Your task to perform on an android device: Open settings Image 0: 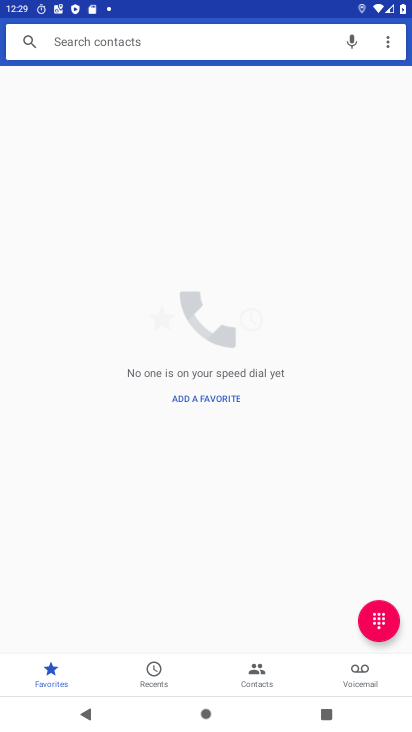
Step 0: press home button
Your task to perform on an android device: Open settings Image 1: 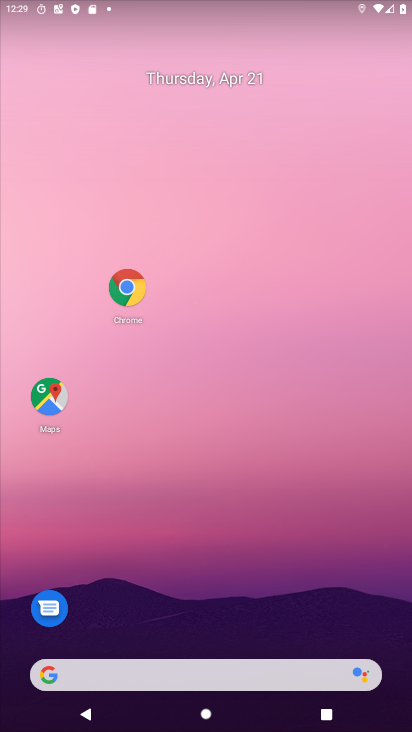
Step 1: drag from (217, 492) to (146, 49)
Your task to perform on an android device: Open settings Image 2: 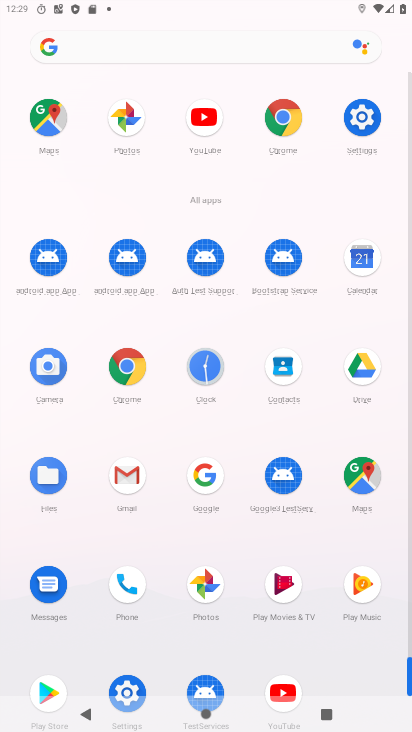
Step 2: click (359, 131)
Your task to perform on an android device: Open settings Image 3: 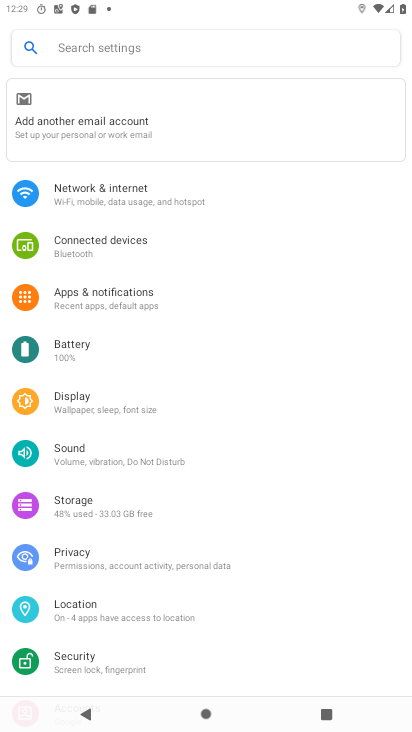
Step 3: task complete